Your task to perform on an android device: Go to Reddit.com Image 0: 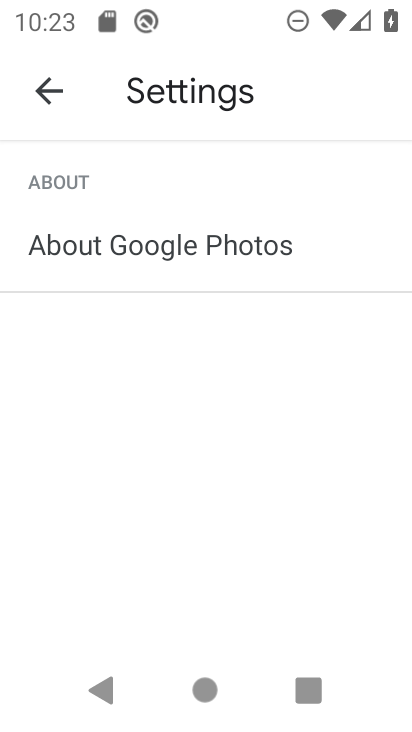
Step 0: press home button
Your task to perform on an android device: Go to Reddit.com Image 1: 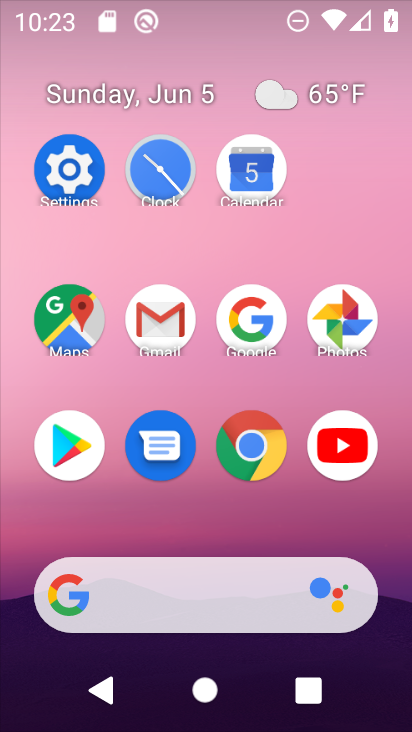
Step 1: click (250, 341)
Your task to perform on an android device: Go to Reddit.com Image 2: 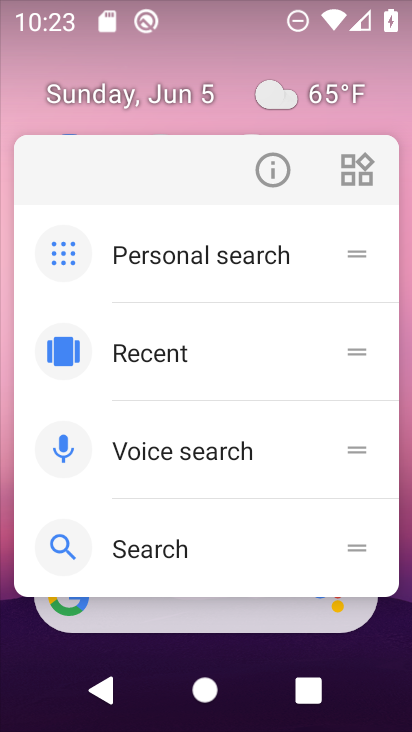
Step 2: click (188, 119)
Your task to perform on an android device: Go to Reddit.com Image 3: 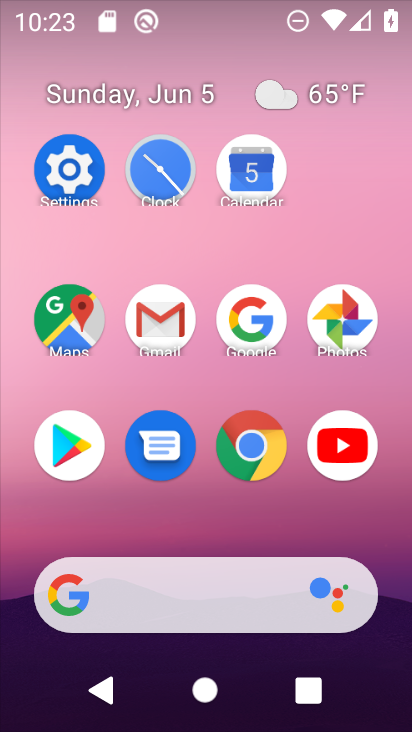
Step 3: click (259, 342)
Your task to perform on an android device: Go to Reddit.com Image 4: 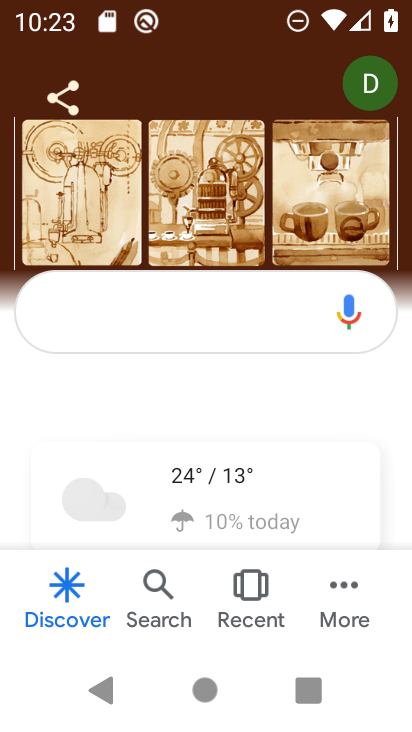
Step 4: click (192, 317)
Your task to perform on an android device: Go to Reddit.com Image 5: 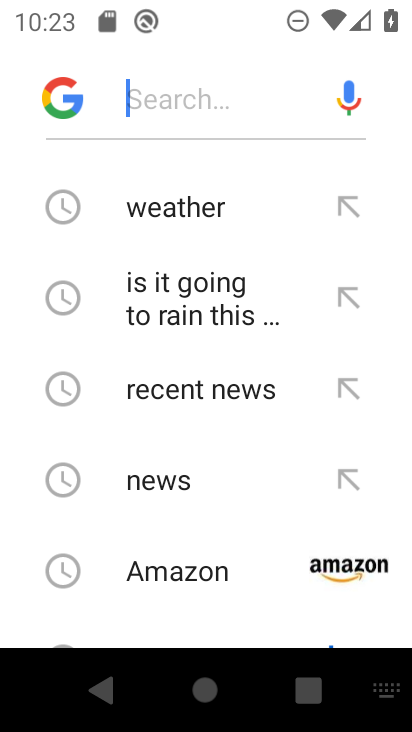
Step 5: drag from (213, 498) to (234, 188)
Your task to perform on an android device: Go to Reddit.com Image 6: 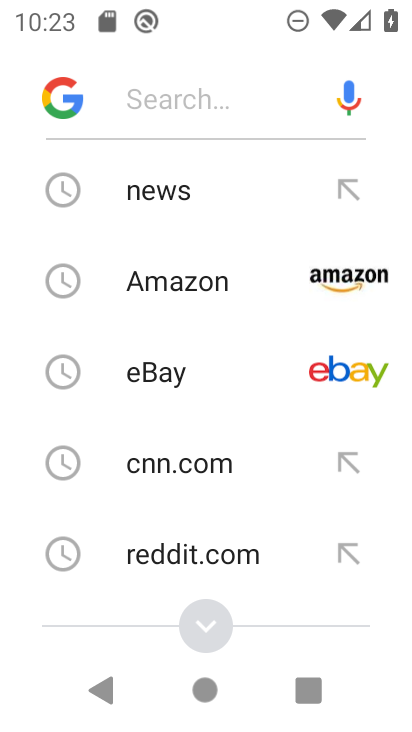
Step 6: drag from (175, 463) to (195, 180)
Your task to perform on an android device: Go to Reddit.com Image 7: 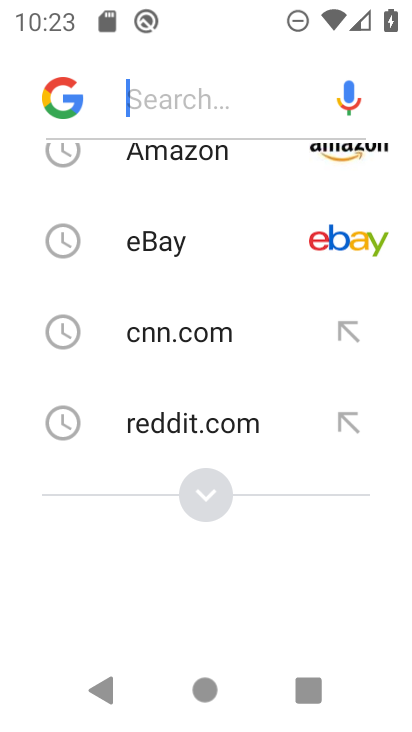
Step 7: click (221, 417)
Your task to perform on an android device: Go to Reddit.com Image 8: 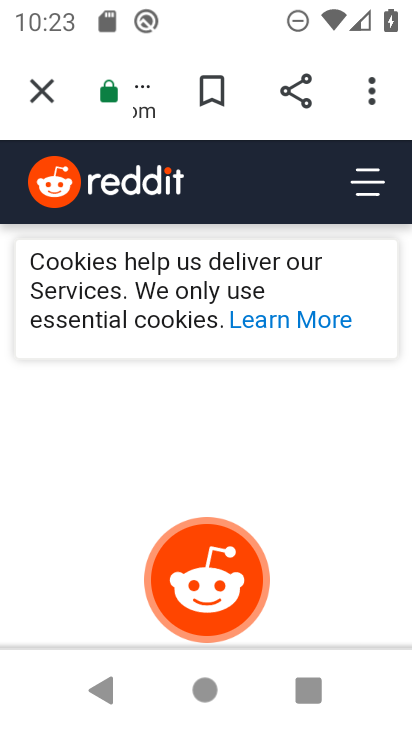
Step 8: task complete